Your task to perform on an android device: Clear the shopping cart on newegg.com. Search for "duracell triple a" on newegg.com, select the first entry, add it to the cart, then select checkout. Image 0: 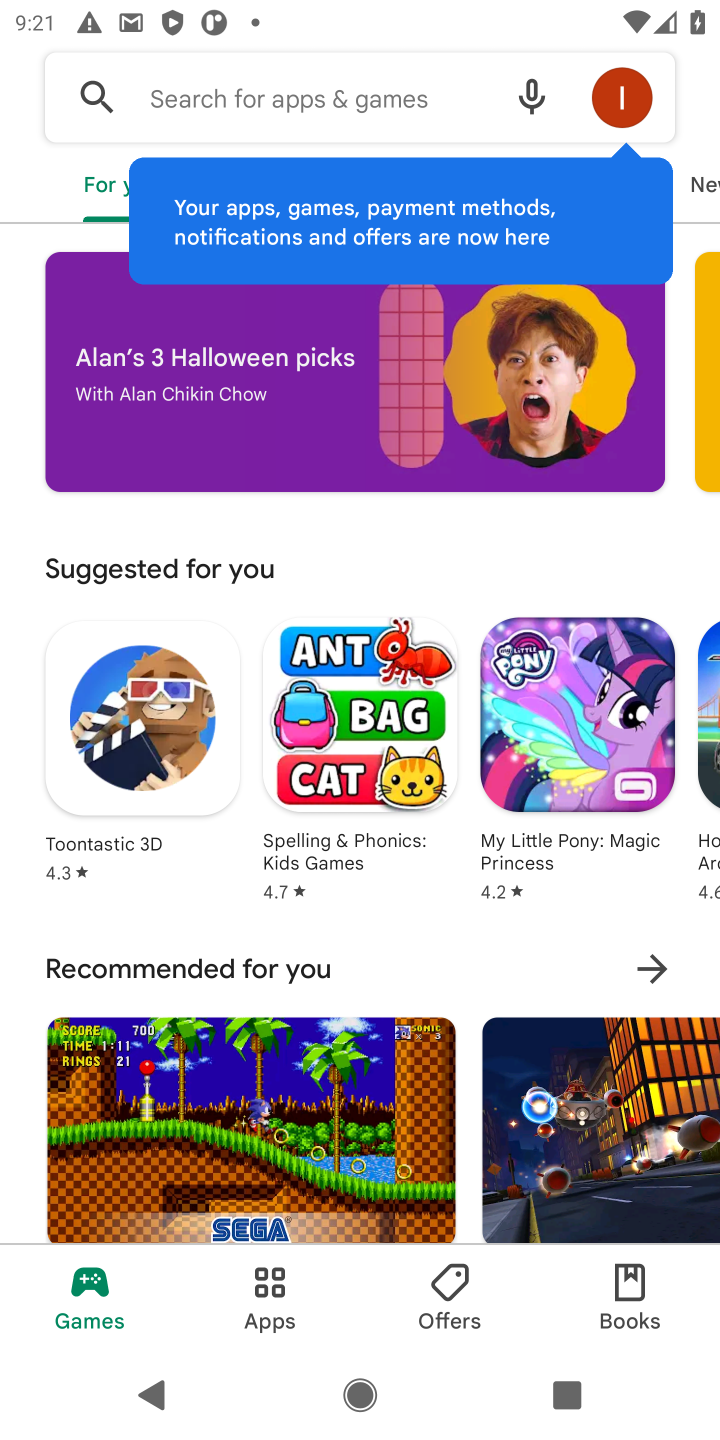
Step 0: press home button
Your task to perform on an android device: Clear the shopping cart on newegg.com. Search for "duracell triple a" on newegg.com, select the first entry, add it to the cart, then select checkout. Image 1: 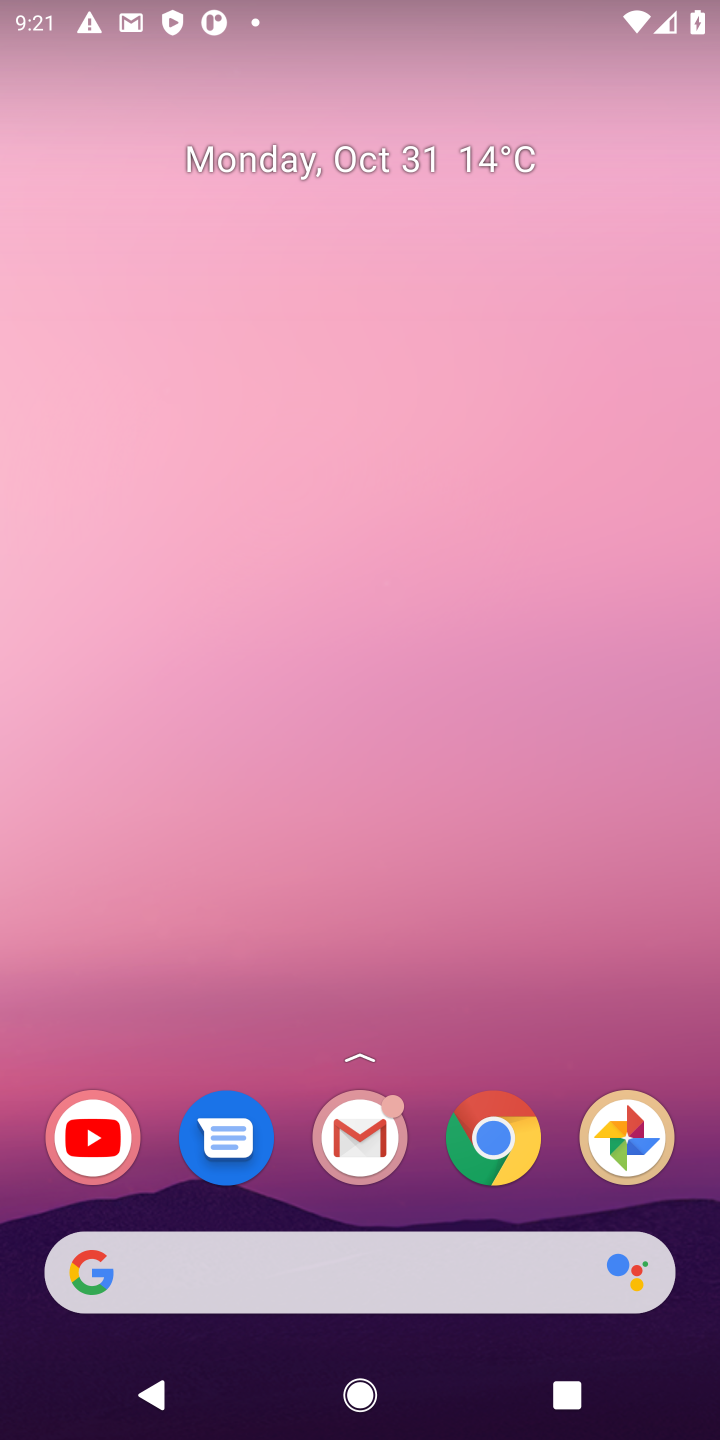
Step 1: click (464, 1153)
Your task to perform on an android device: Clear the shopping cart on newegg.com. Search for "duracell triple a" on newegg.com, select the first entry, add it to the cart, then select checkout. Image 2: 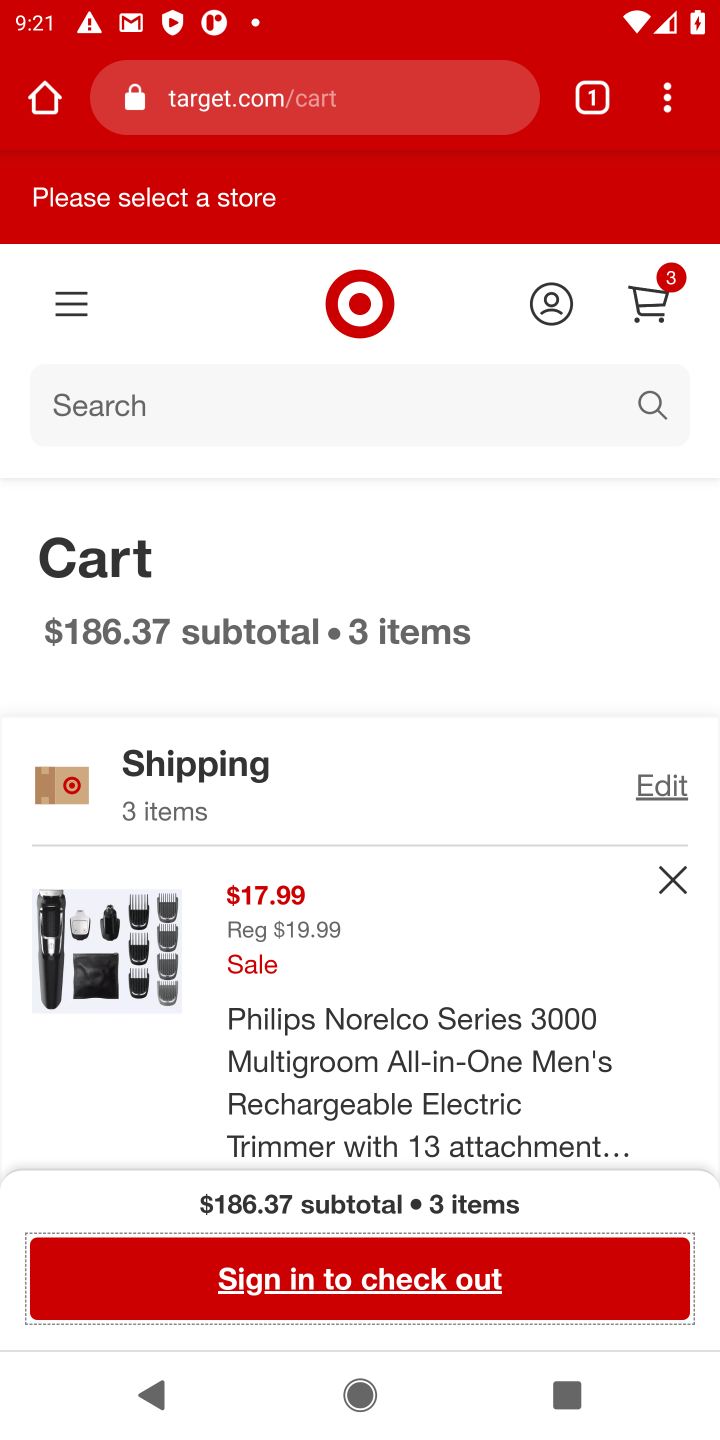
Step 2: click (262, 106)
Your task to perform on an android device: Clear the shopping cart on newegg.com. Search for "duracell triple a" on newegg.com, select the first entry, add it to the cart, then select checkout. Image 3: 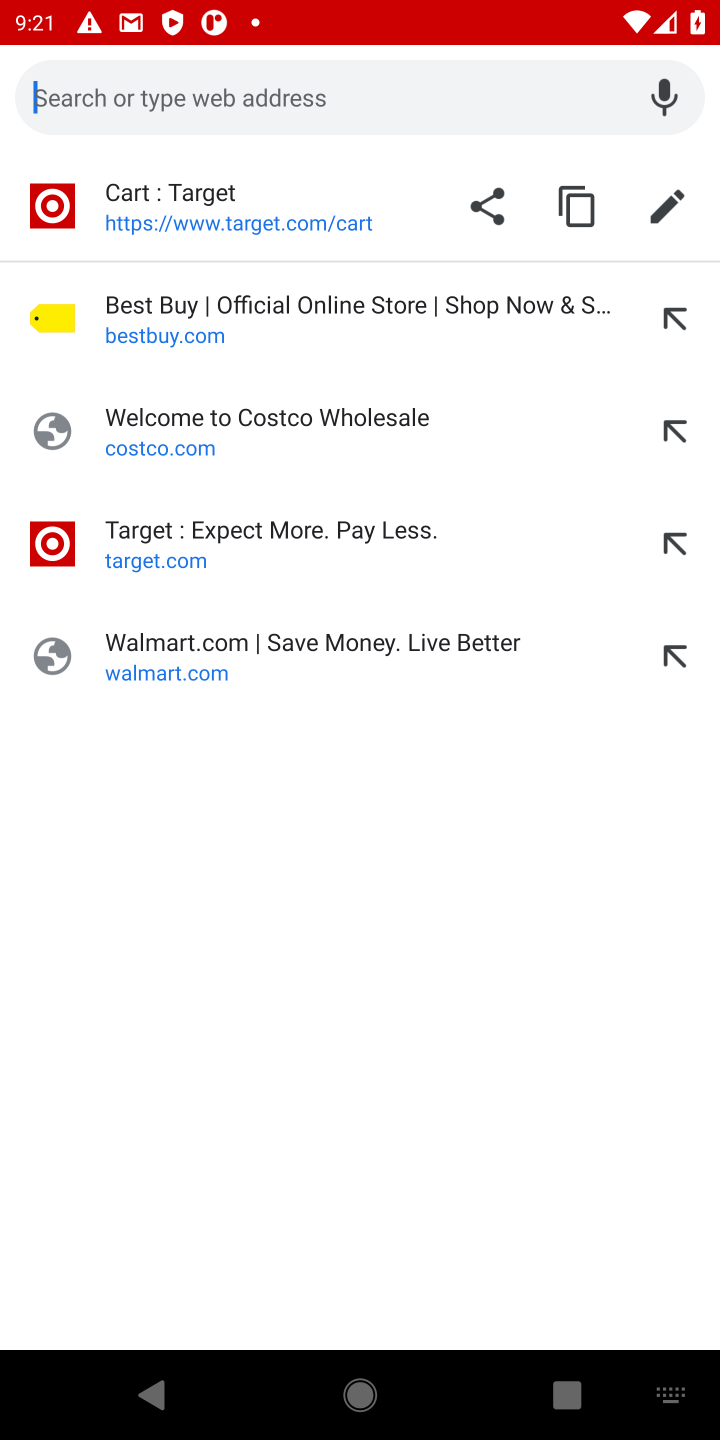
Step 3: type "newegg.com"
Your task to perform on an android device: Clear the shopping cart on newegg.com. Search for "duracell triple a" on newegg.com, select the first entry, add it to the cart, then select checkout. Image 4: 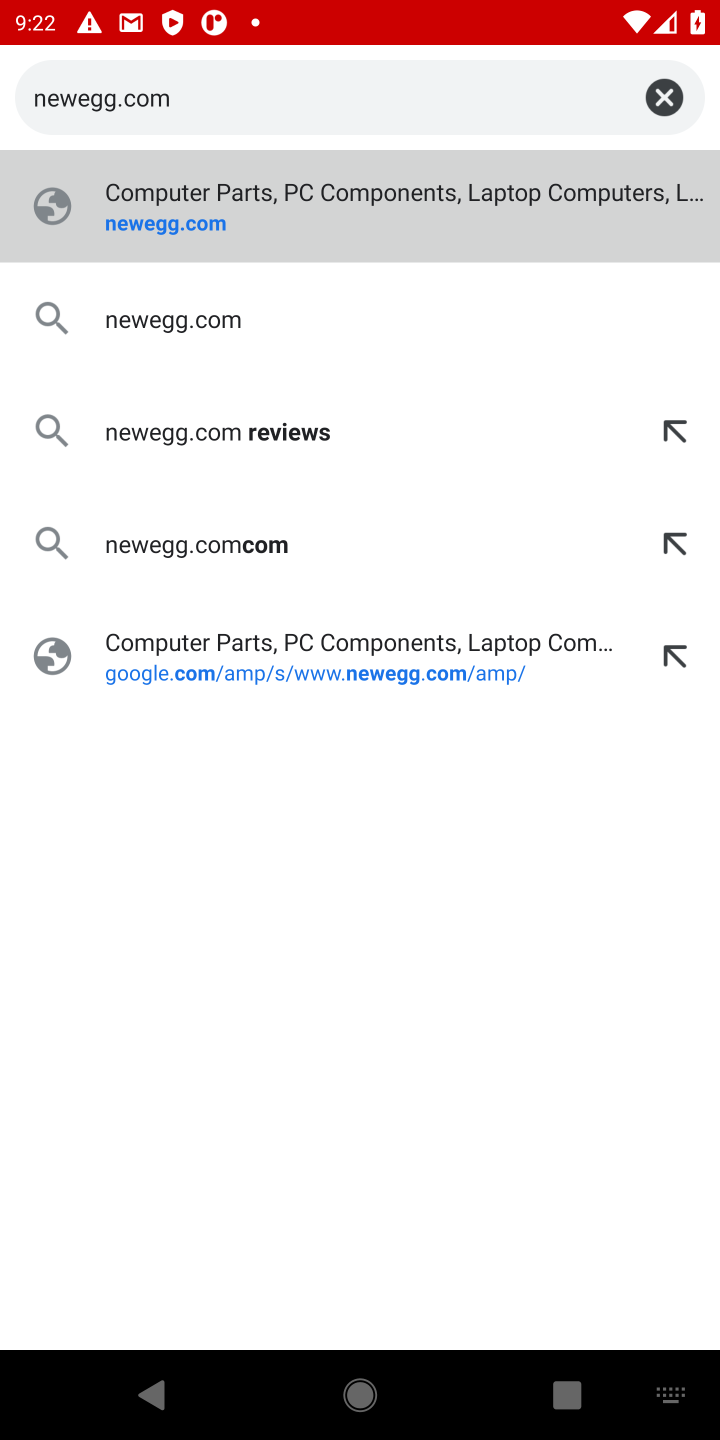
Step 4: click (237, 218)
Your task to perform on an android device: Clear the shopping cart on newegg.com. Search for "duracell triple a" on newegg.com, select the first entry, add it to the cart, then select checkout. Image 5: 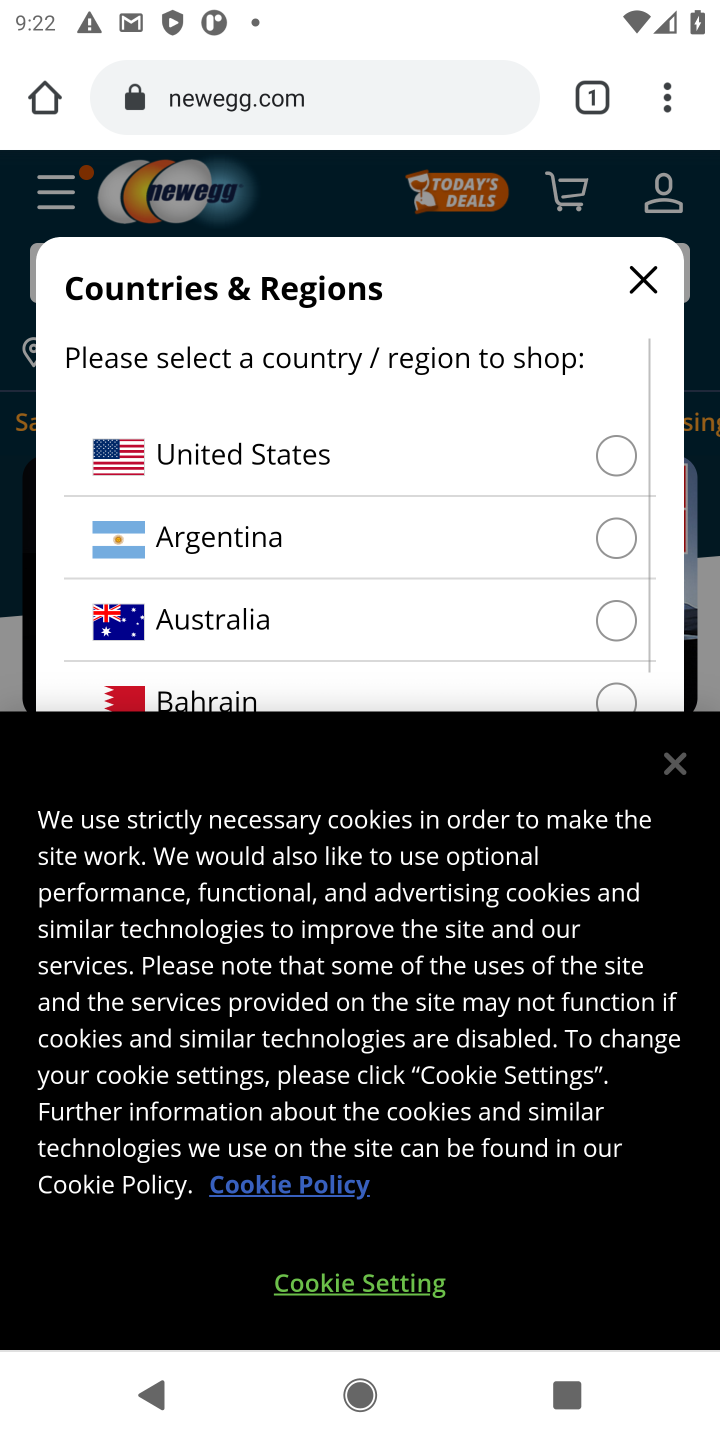
Step 5: click (676, 765)
Your task to perform on an android device: Clear the shopping cart on newegg.com. Search for "duracell triple a" on newegg.com, select the first entry, add it to the cart, then select checkout. Image 6: 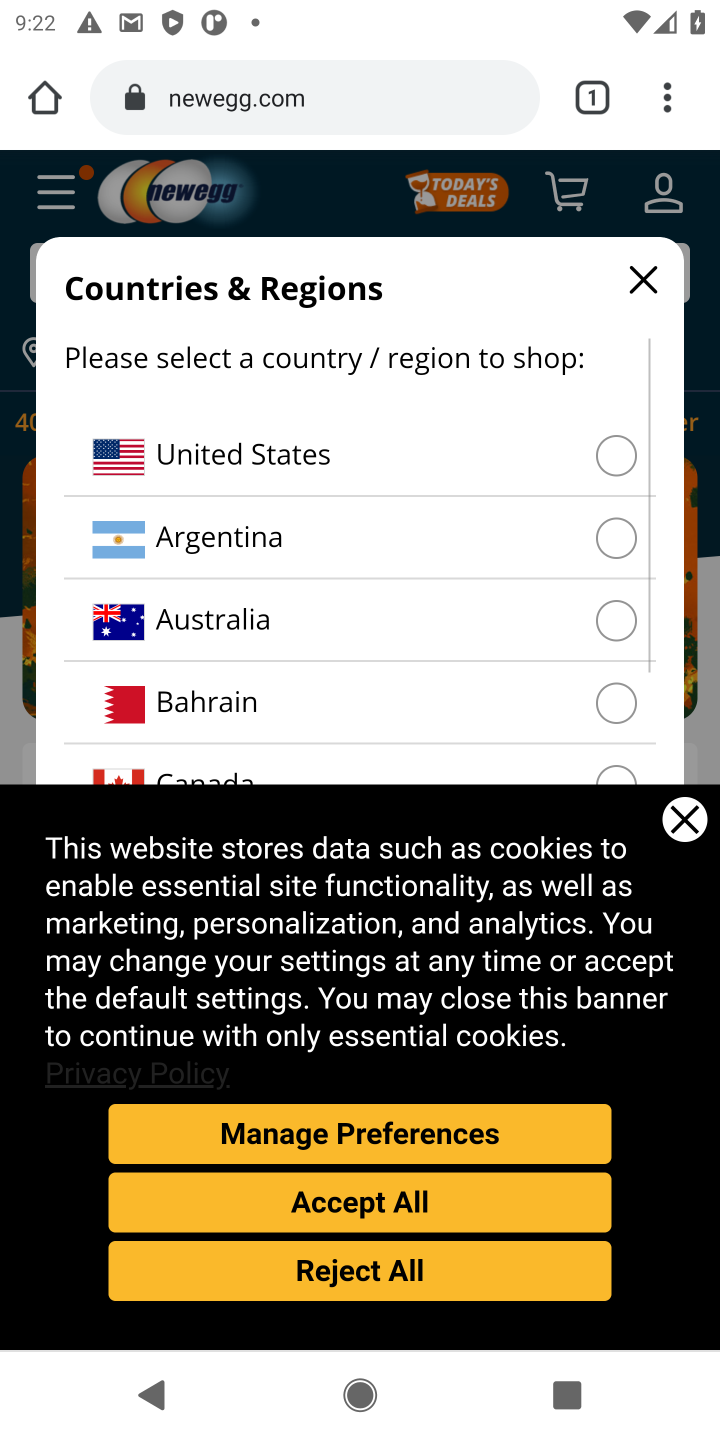
Step 6: click (688, 815)
Your task to perform on an android device: Clear the shopping cart on newegg.com. Search for "duracell triple a" on newegg.com, select the first entry, add it to the cart, then select checkout. Image 7: 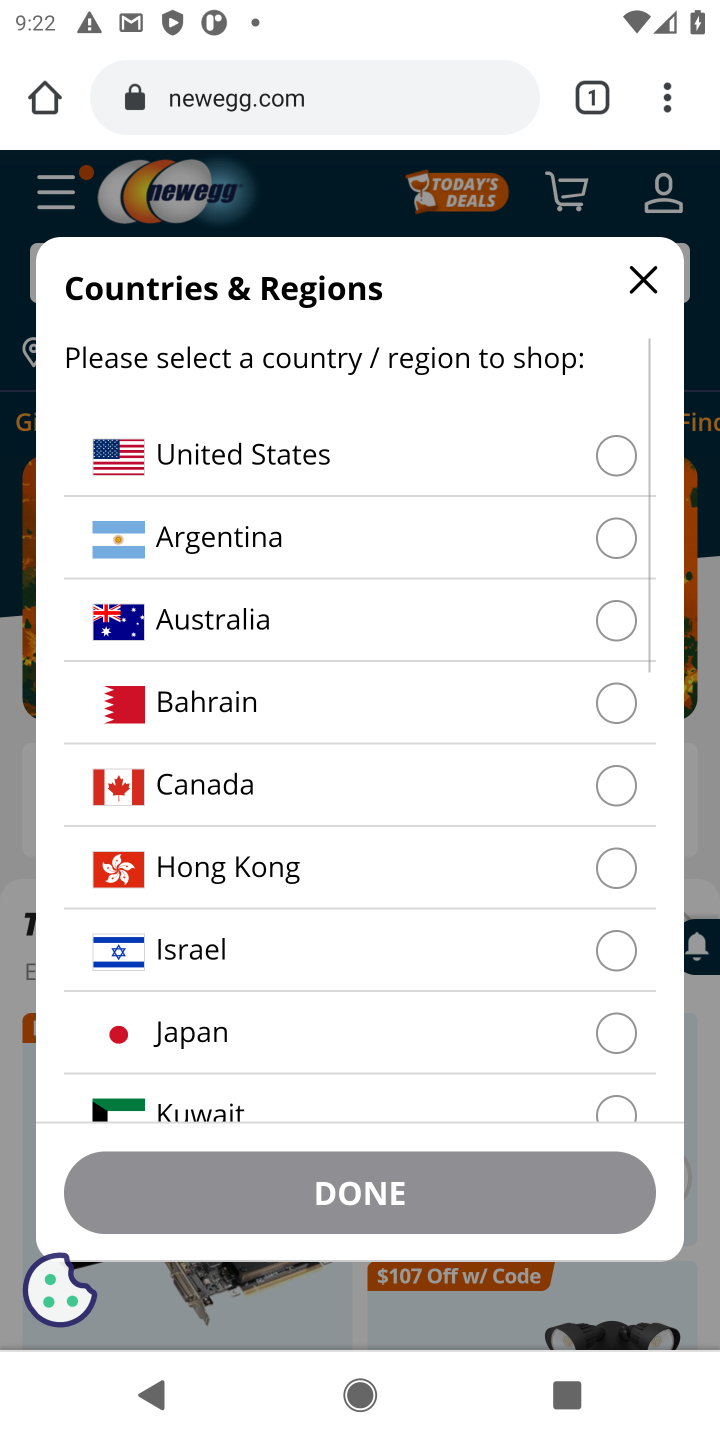
Step 7: click (246, 99)
Your task to perform on an android device: Clear the shopping cart on newegg.com. Search for "duracell triple a" on newegg.com, select the first entry, add it to the cart, then select checkout. Image 8: 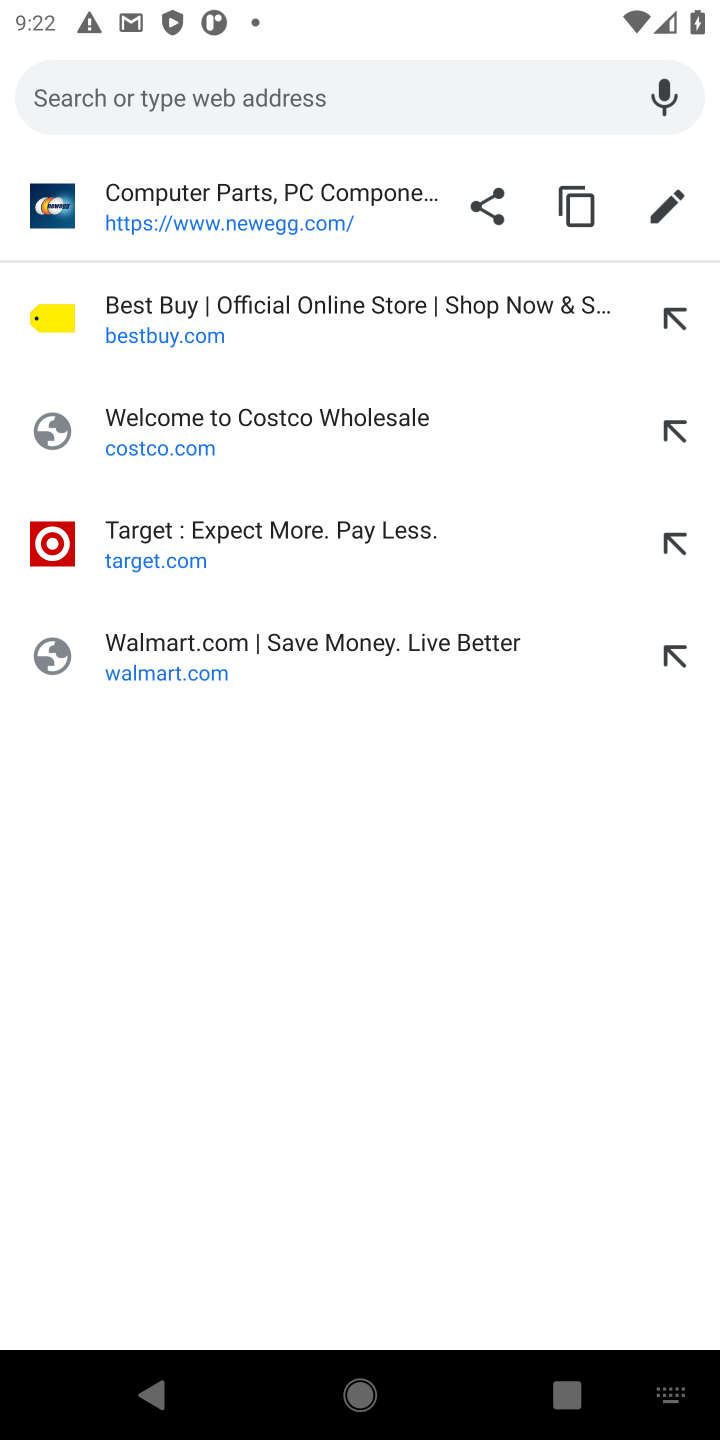
Step 8: type "newegg.com"
Your task to perform on an android device: Clear the shopping cart on newegg.com. Search for "duracell triple a" on newegg.com, select the first entry, add it to the cart, then select checkout. Image 9: 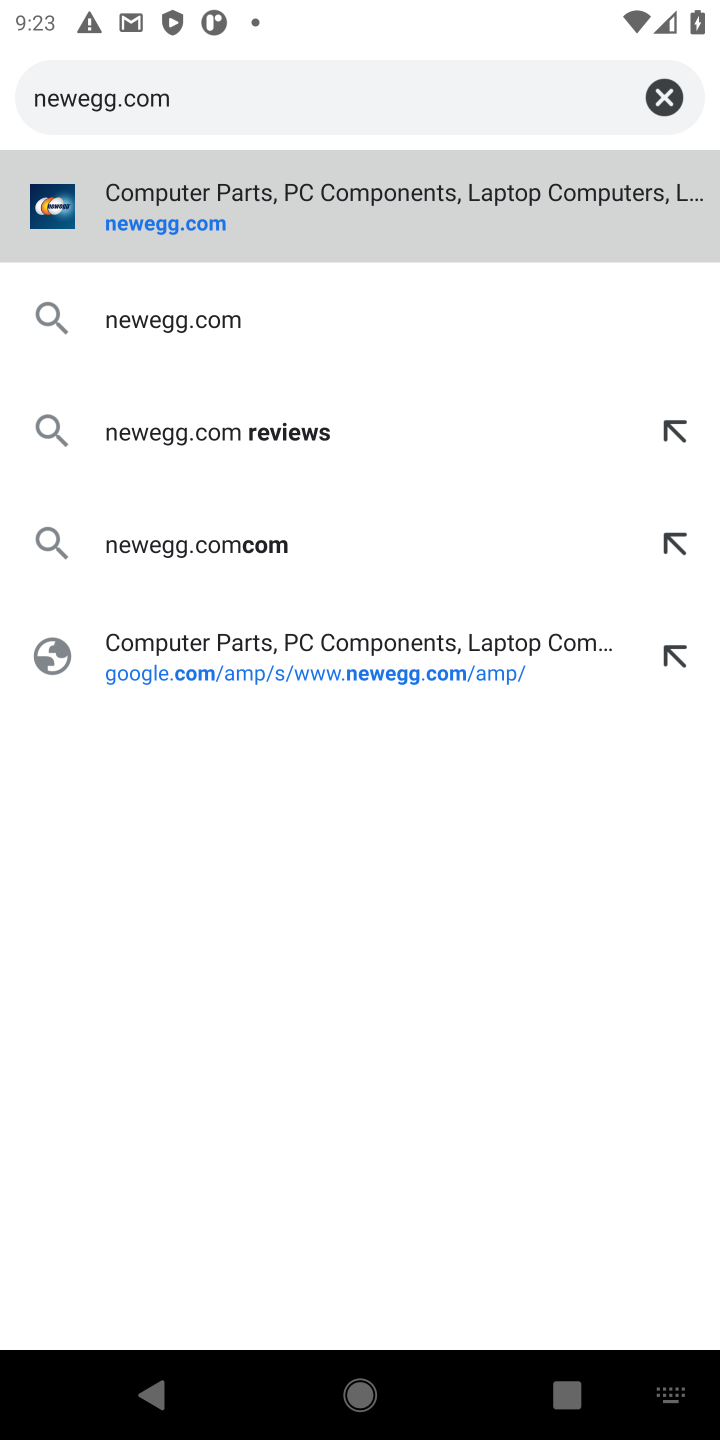
Step 9: type ""
Your task to perform on an android device: Clear the shopping cart on newegg.com. Search for "duracell triple a" on newegg.com, select the first entry, add it to the cart, then select checkout. Image 10: 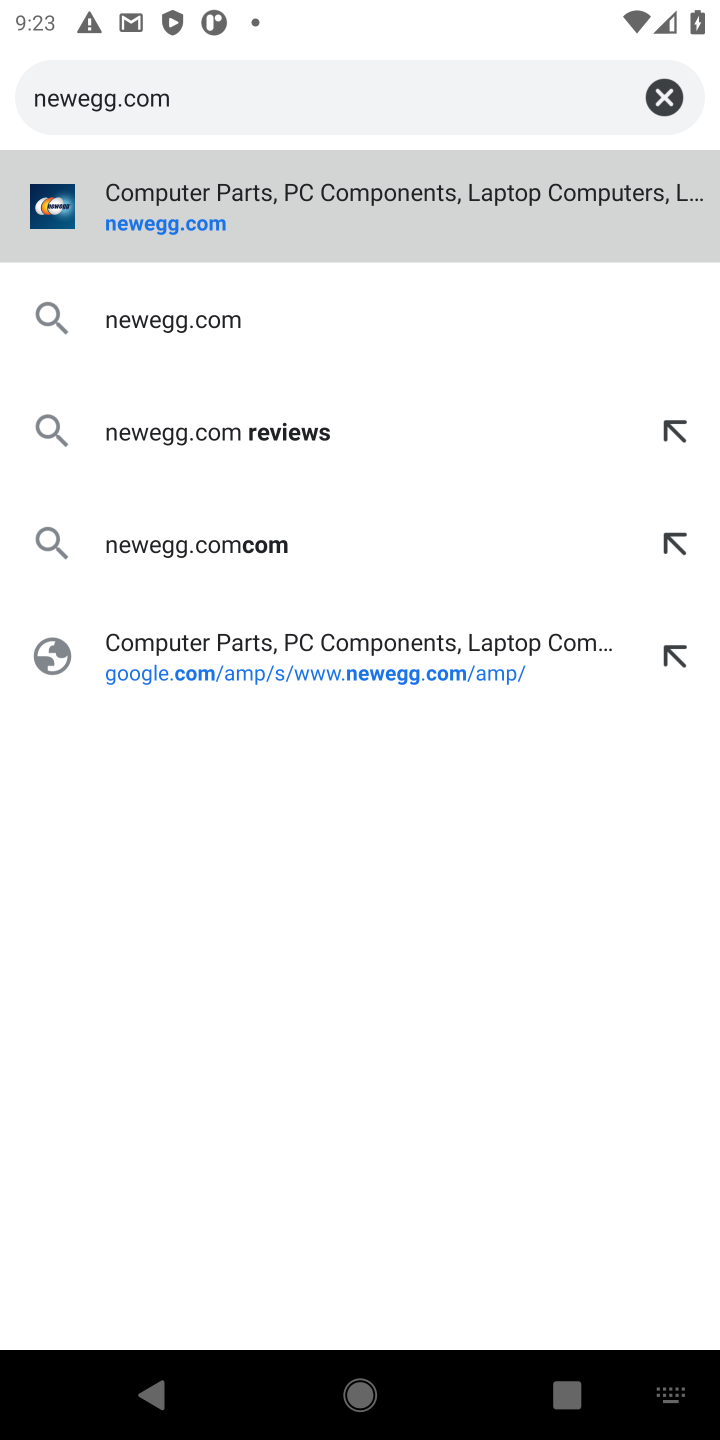
Step 10: click (183, 186)
Your task to perform on an android device: Clear the shopping cart on newegg.com. Search for "duracell triple a" on newegg.com, select the first entry, add it to the cart, then select checkout. Image 11: 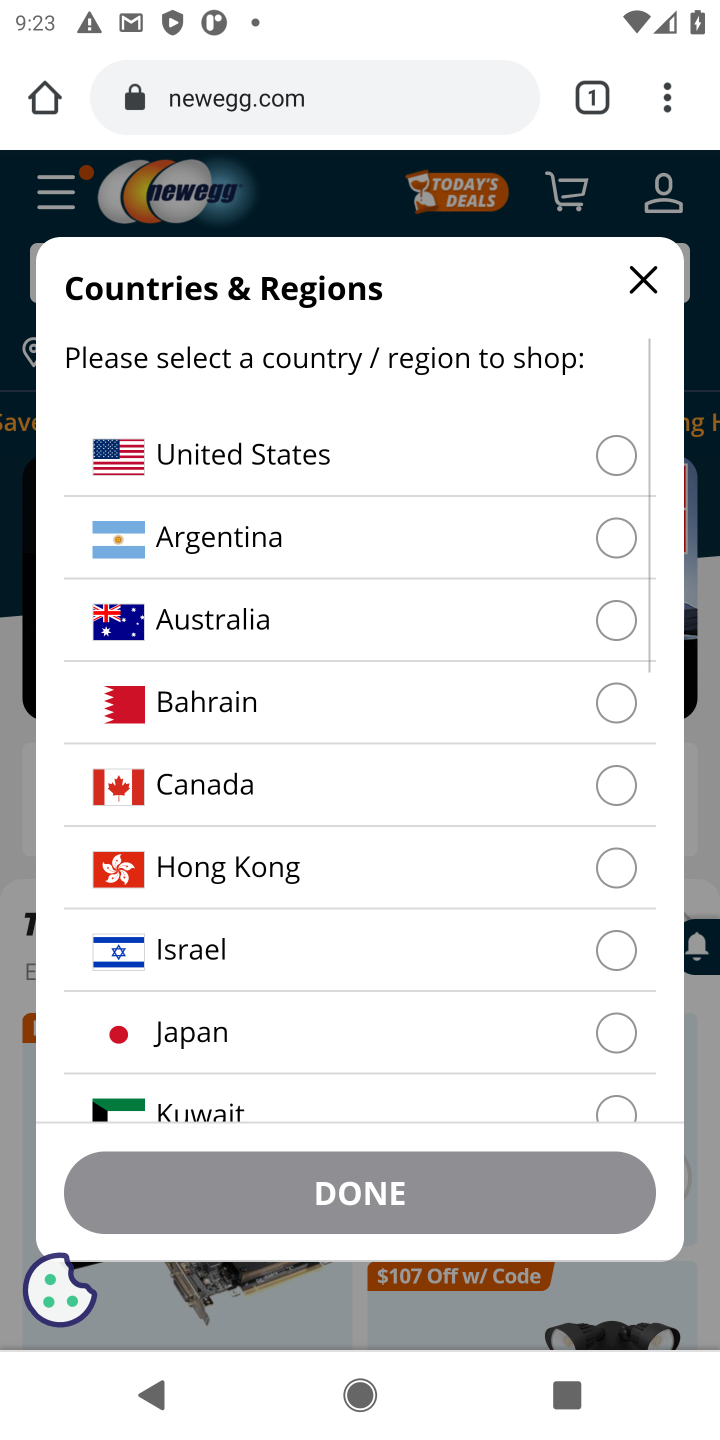
Step 11: click (639, 284)
Your task to perform on an android device: Clear the shopping cart on newegg.com. Search for "duracell triple a" on newegg.com, select the first entry, add it to the cart, then select checkout. Image 12: 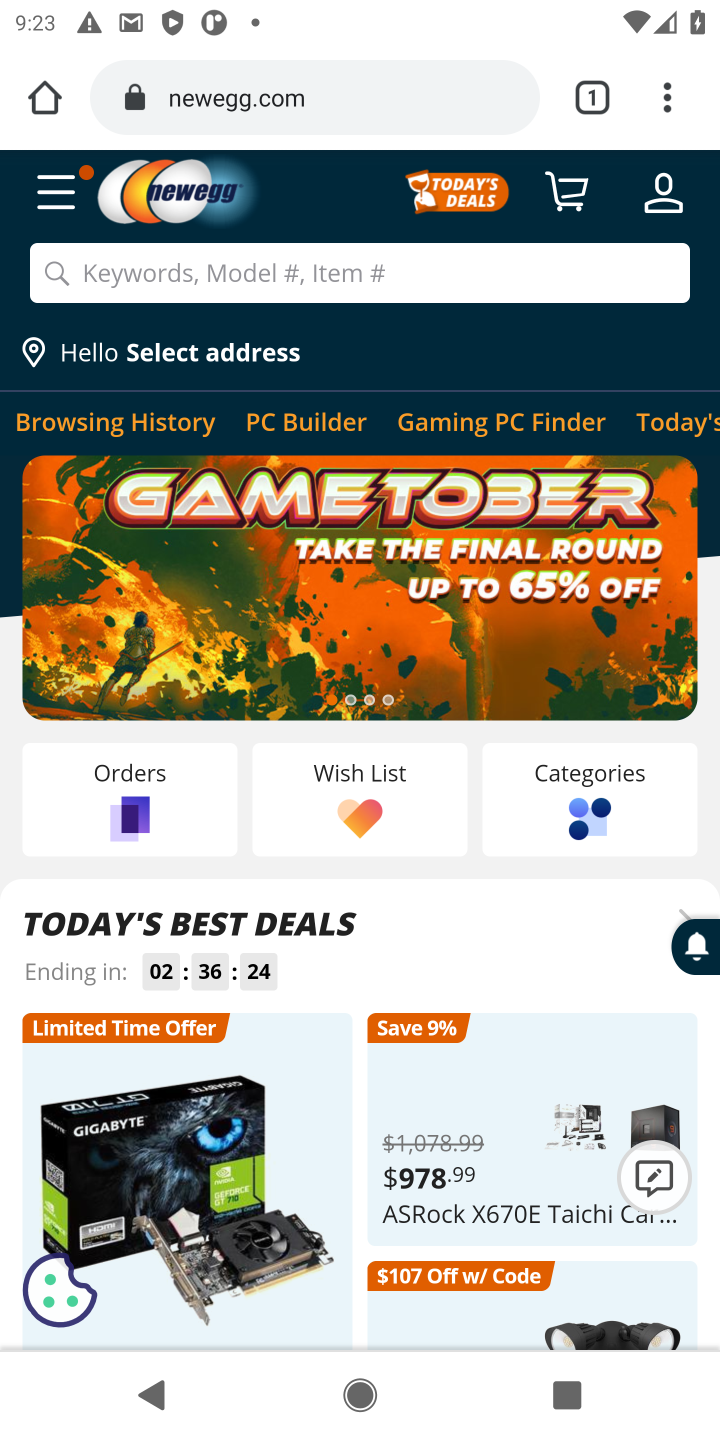
Step 12: click (602, 458)
Your task to perform on an android device: Clear the shopping cart on newegg.com. Search for "duracell triple a" on newegg.com, select the first entry, add it to the cart, then select checkout. Image 13: 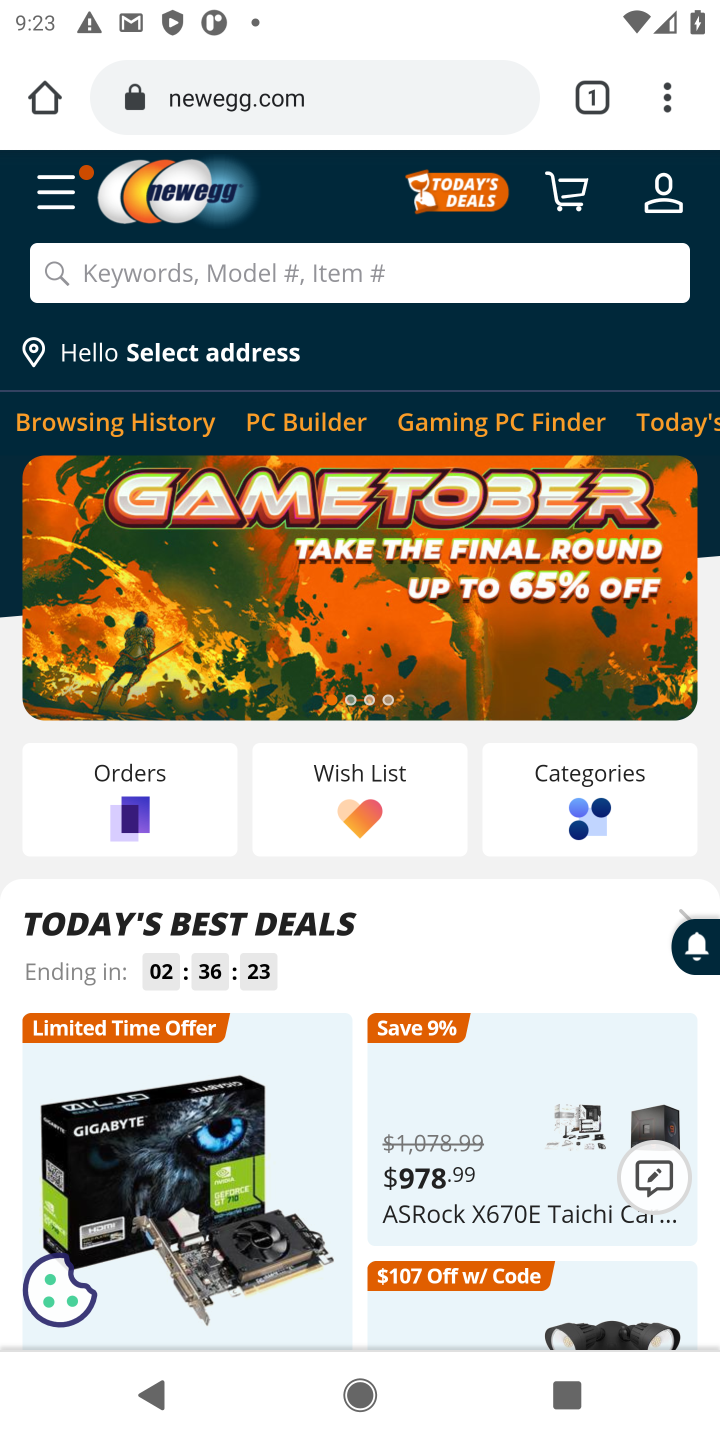
Step 13: click (620, 448)
Your task to perform on an android device: Clear the shopping cart on newegg.com. Search for "duracell triple a" on newegg.com, select the first entry, add it to the cart, then select checkout. Image 14: 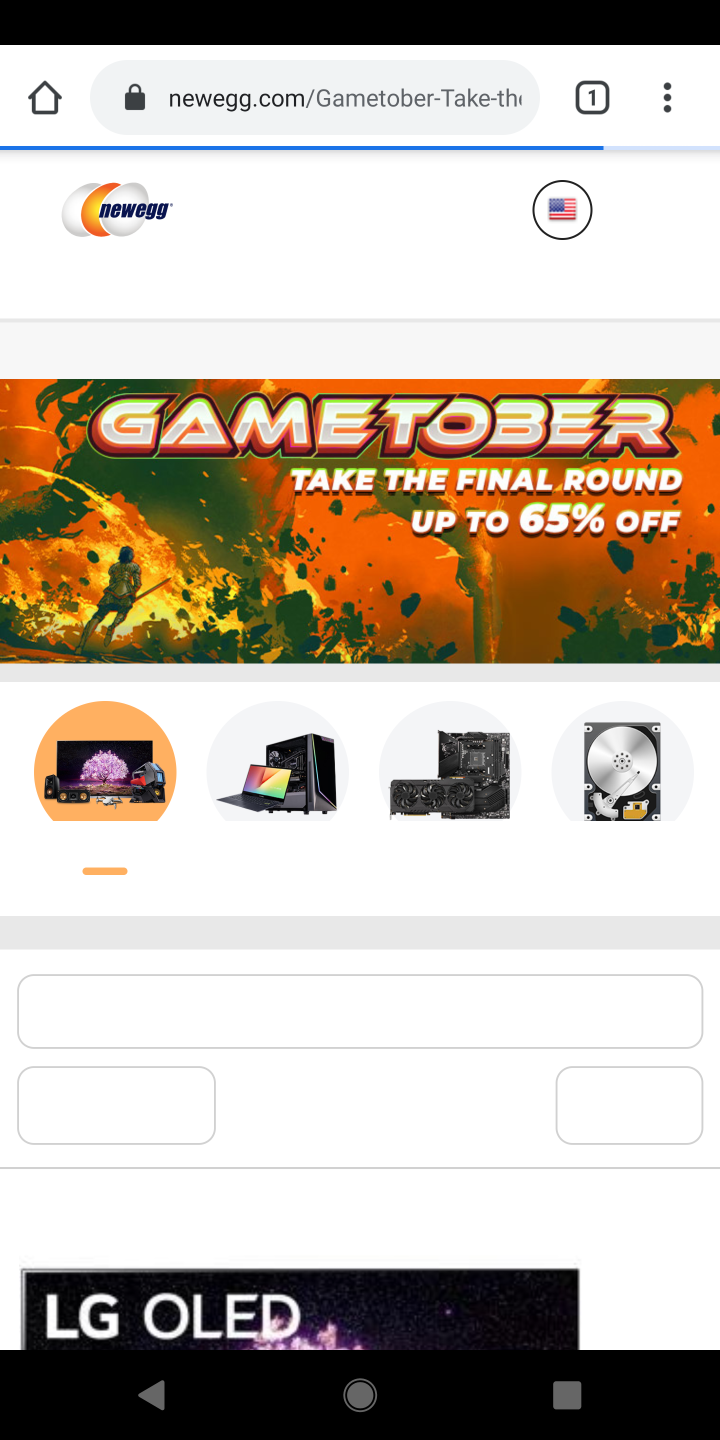
Step 14: click (154, 268)
Your task to perform on an android device: Clear the shopping cart on newegg.com. Search for "duracell triple a" on newegg.com, select the first entry, add it to the cart, then select checkout. Image 15: 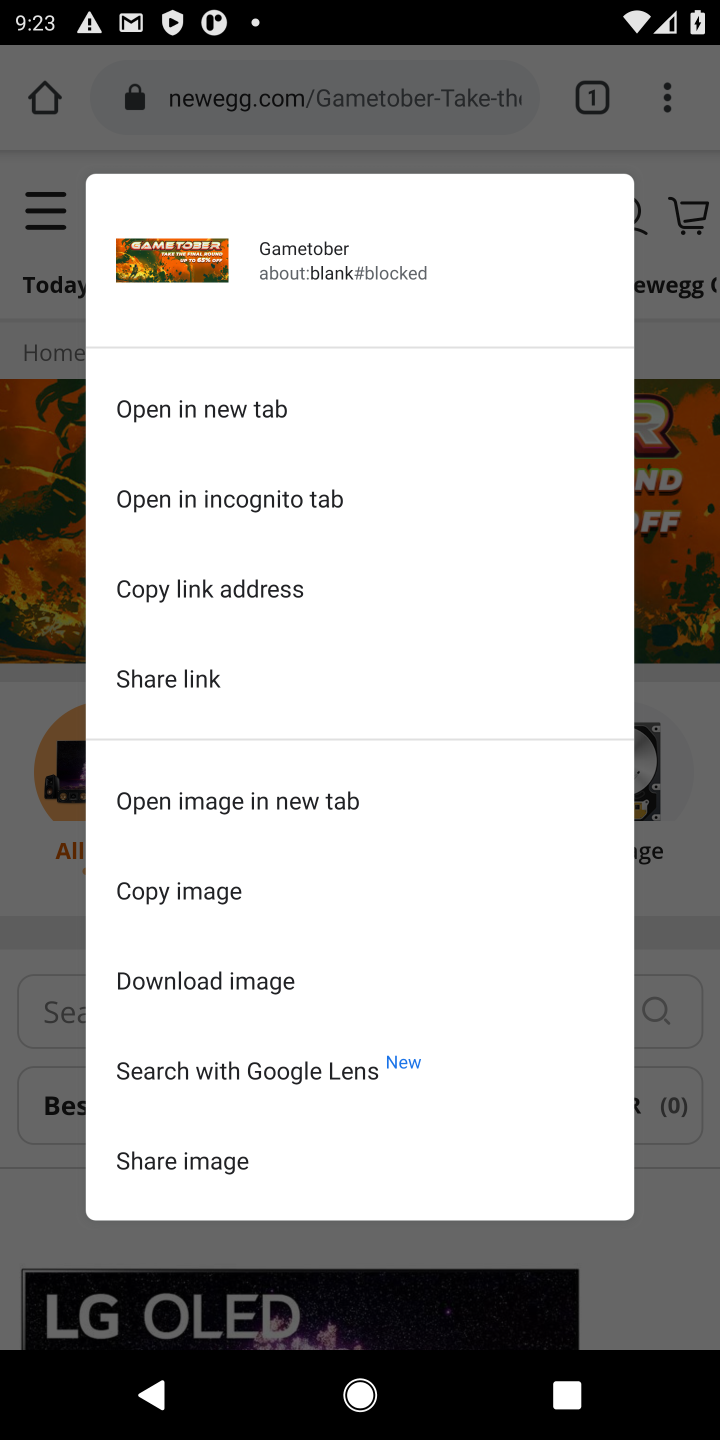
Step 15: press back button
Your task to perform on an android device: Clear the shopping cart on newegg.com. Search for "duracell triple a" on newegg.com, select the first entry, add it to the cart, then select checkout. Image 16: 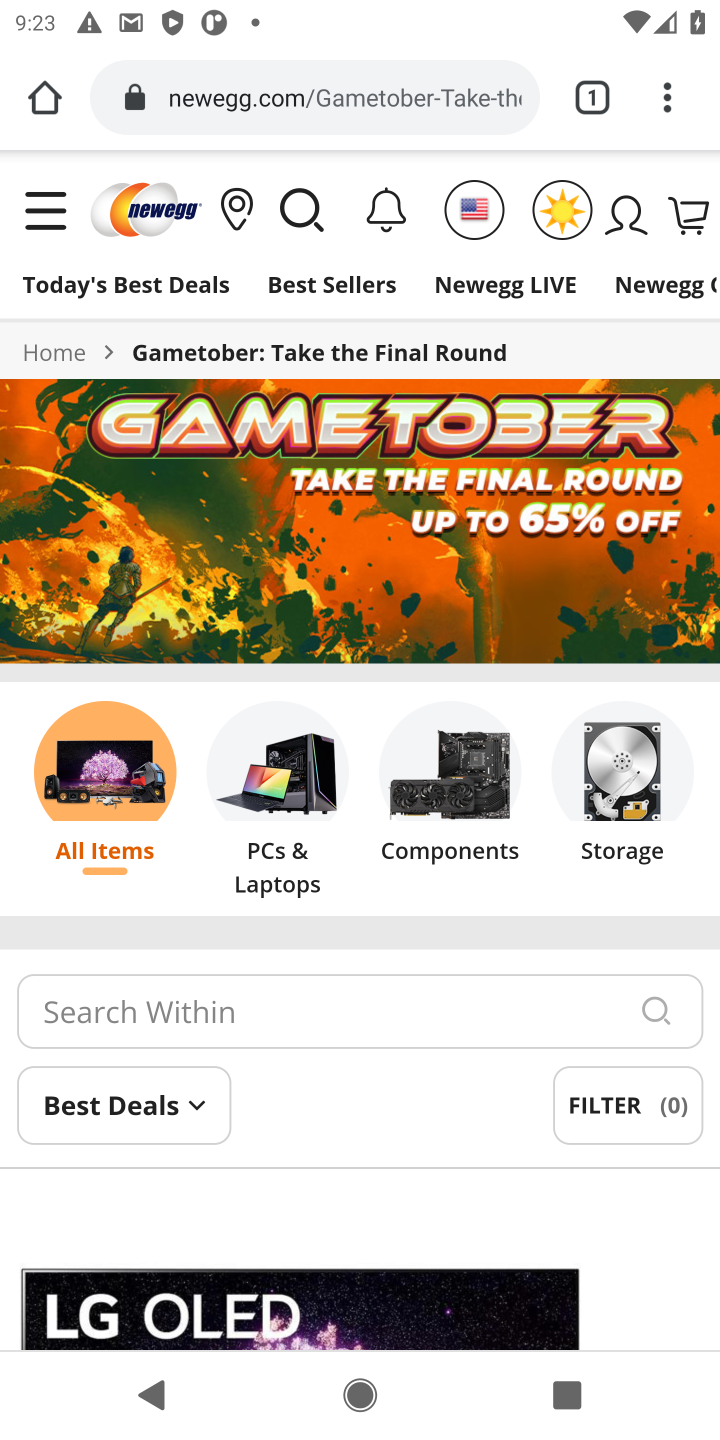
Step 16: click (288, 1010)
Your task to perform on an android device: Clear the shopping cart on newegg.com. Search for "duracell triple a" on newegg.com, select the first entry, add it to the cart, then select checkout. Image 17: 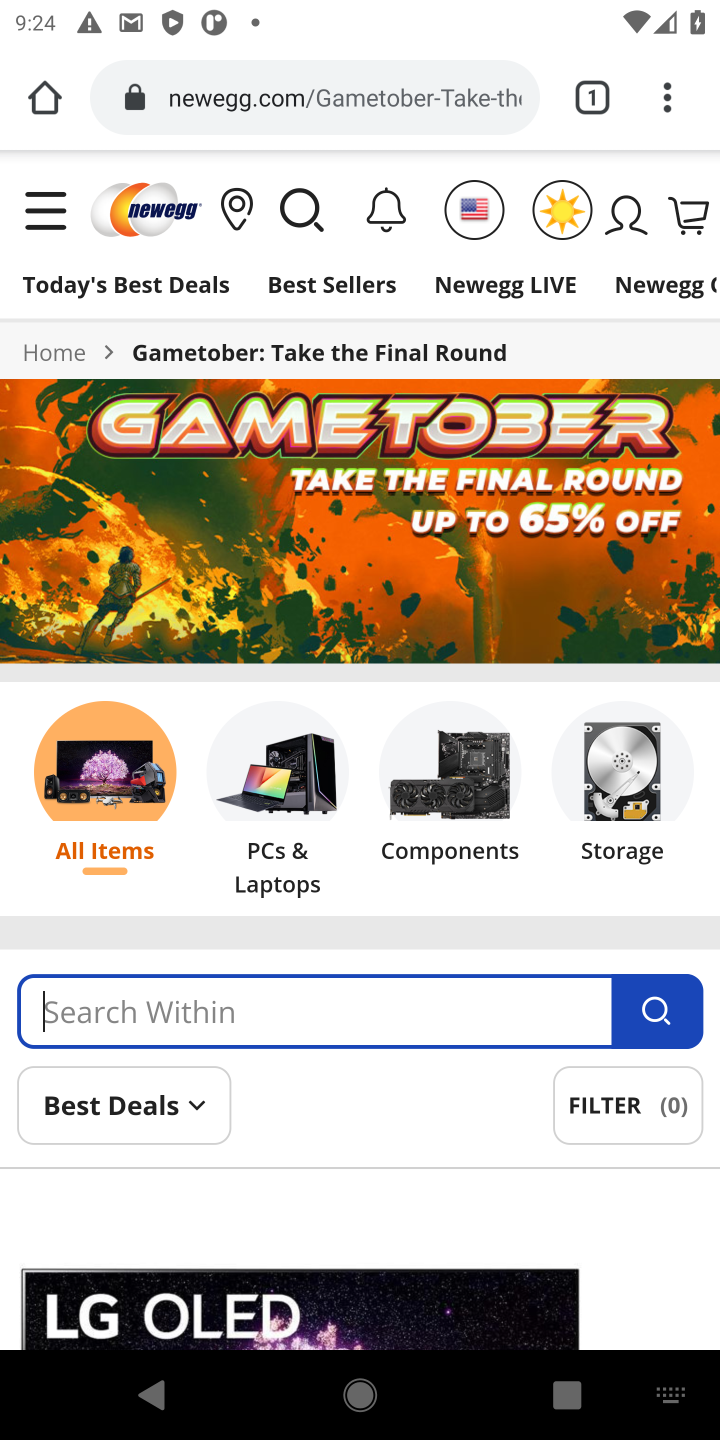
Step 17: type "duracell triple"
Your task to perform on an android device: Clear the shopping cart on newegg.com. Search for "duracell triple a" on newegg.com, select the first entry, add it to the cart, then select checkout. Image 18: 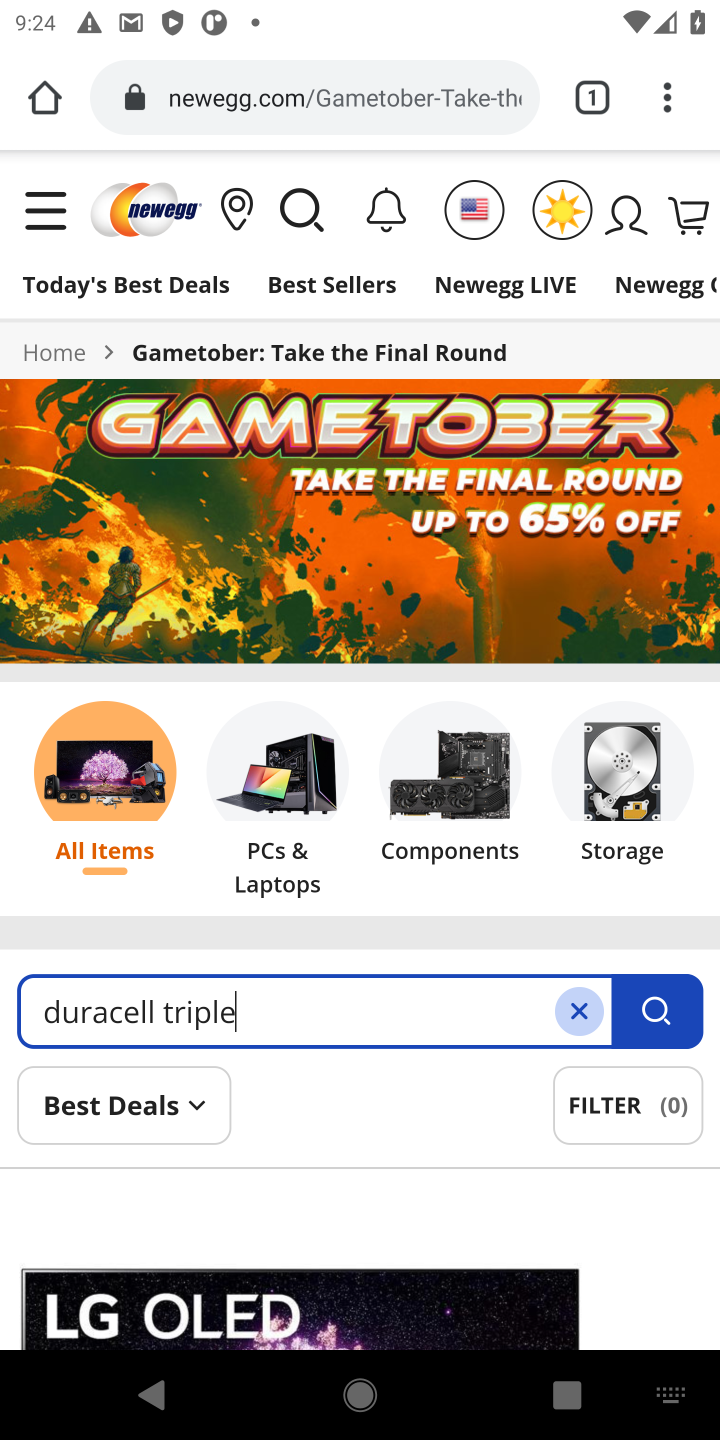
Step 18: type ""
Your task to perform on an android device: Clear the shopping cart on newegg.com. Search for "duracell triple a" on newegg.com, select the first entry, add it to the cart, then select checkout. Image 19: 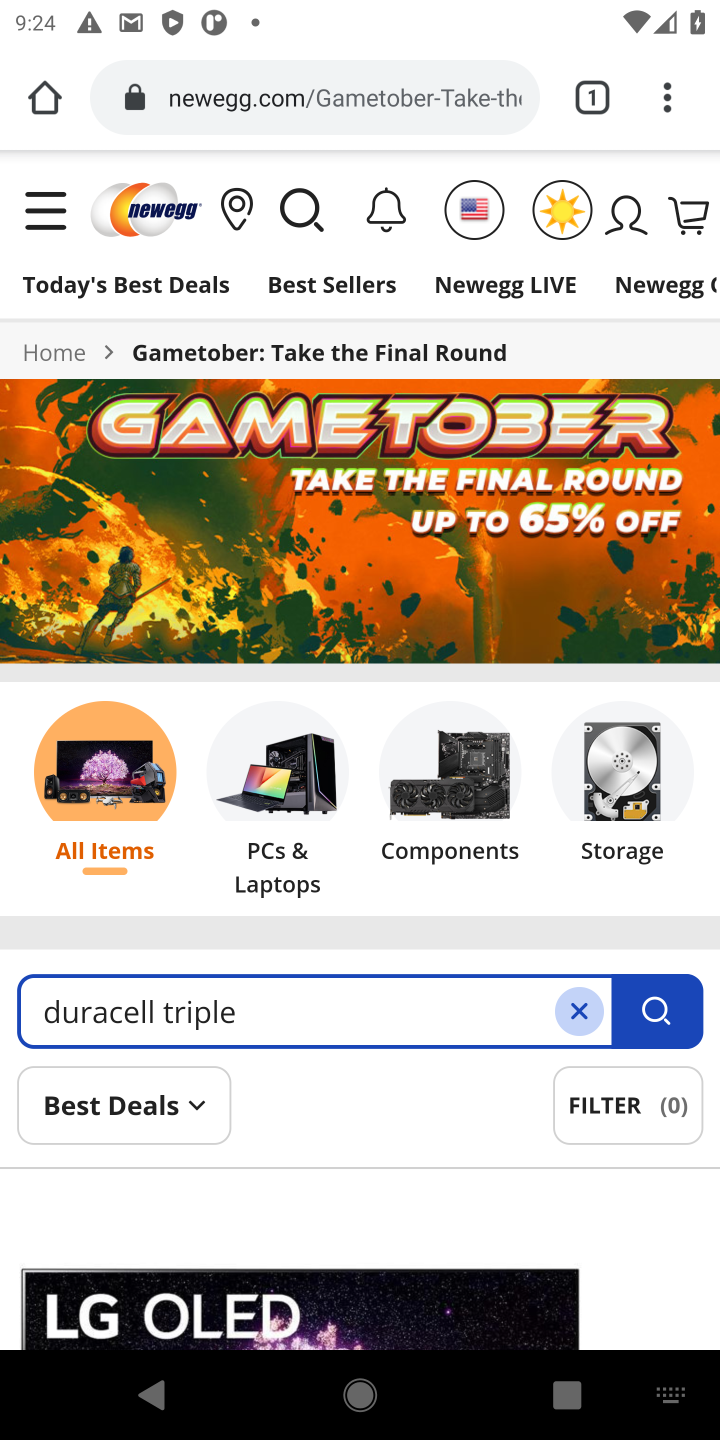
Step 19: click (651, 1023)
Your task to perform on an android device: Clear the shopping cart on newegg.com. Search for "duracell triple a" on newegg.com, select the first entry, add it to the cart, then select checkout. Image 20: 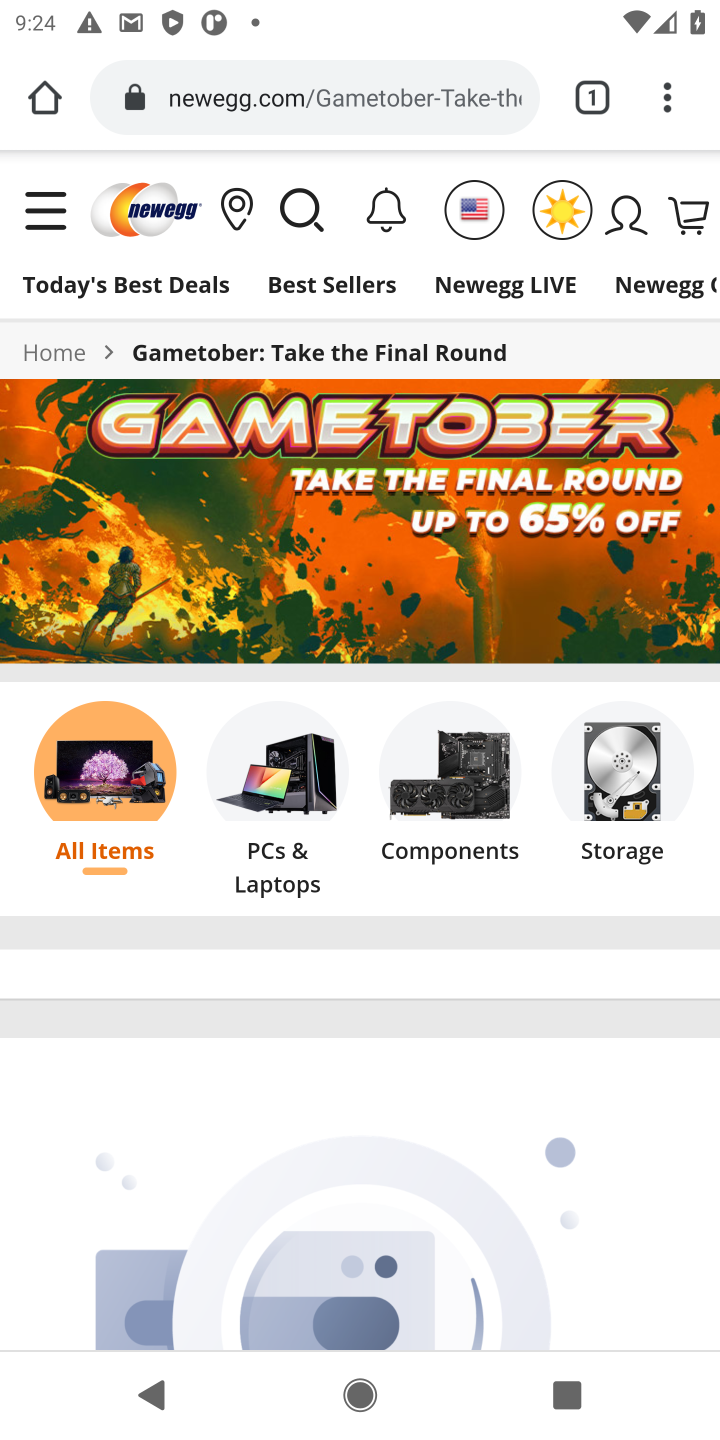
Step 20: click (311, 212)
Your task to perform on an android device: Clear the shopping cart on newegg.com. Search for "duracell triple a" on newegg.com, select the first entry, add it to the cart, then select checkout. Image 21: 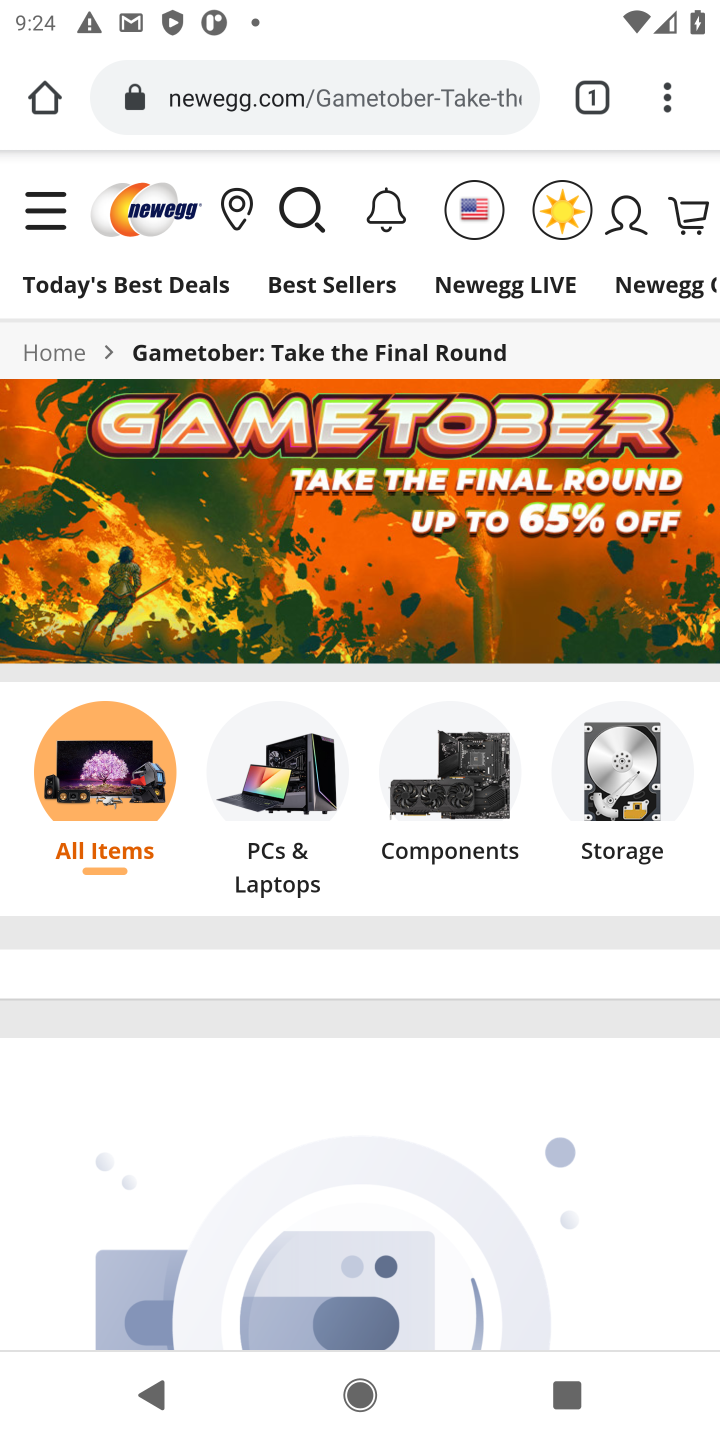
Step 21: click (317, 208)
Your task to perform on an android device: Clear the shopping cart on newegg.com. Search for "duracell triple a" on newegg.com, select the first entry, add it to the cart, then select checkout. Image 22: 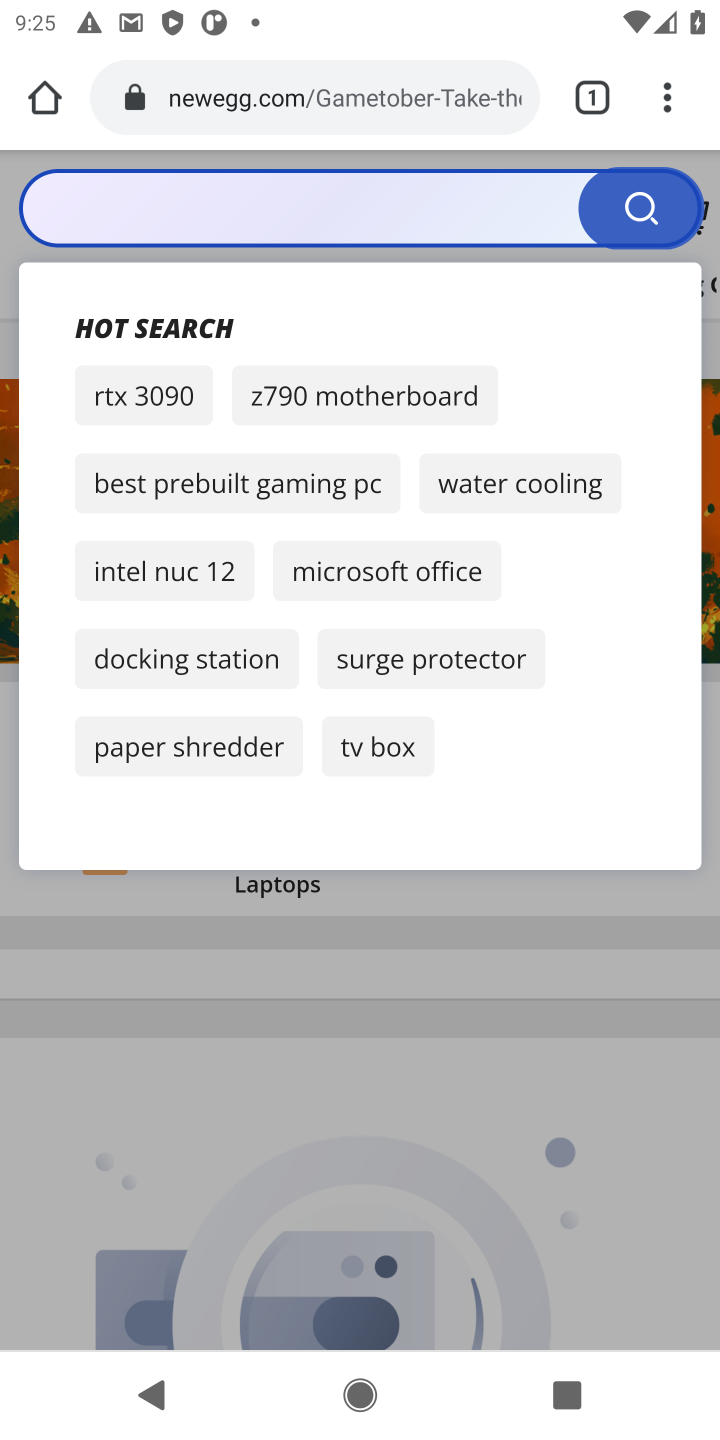
Step 22: click (110, 188)
Your task to perform on an android device: Clear the shopping cart on newegg.com. Search for "duracell triple a" on newegg.com, select the first entry, add it to the cart, then select checkout. Image 23: 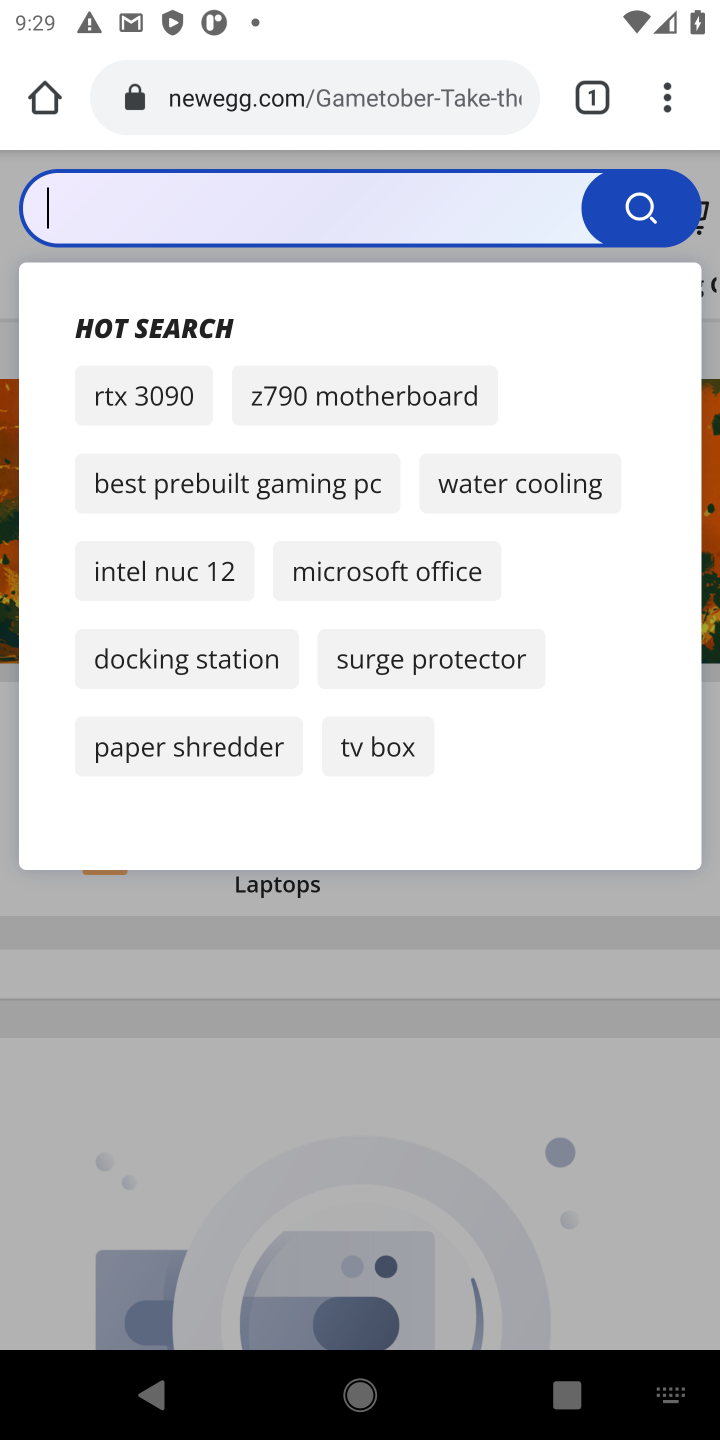
Step 23: type "duracell triple "
Your task to perform on an android device: Clear the shopping cart on newegg.com. Search for "duracell triple a" on newegg.com, select the first entry, add it to the cart, then select checkout. Image 24: 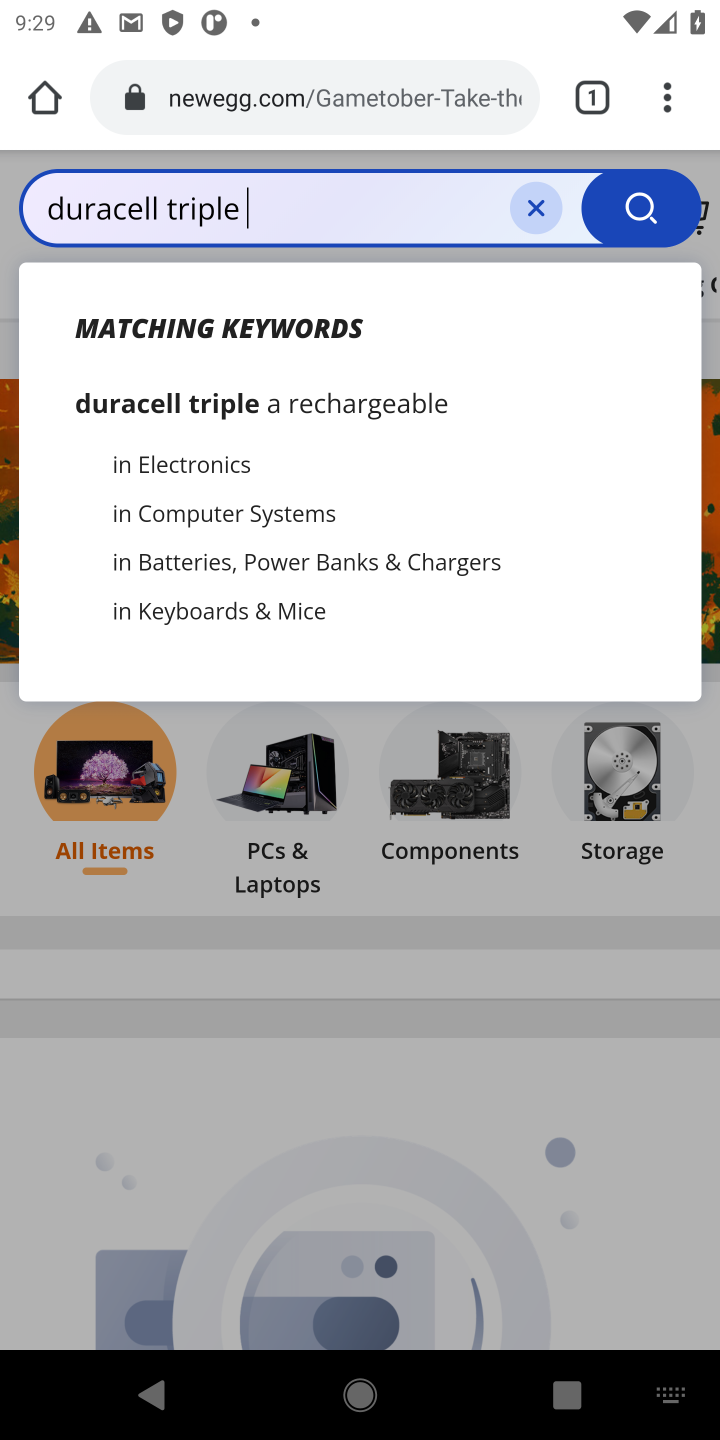
Step 24: click (335, 401)
Your task to perform on an android device: Clear the shopping cart on newegg.com. Search for "duracell triple a" on newegg.com, select the first entry, add it to the cart, then select checkout. Image 25: 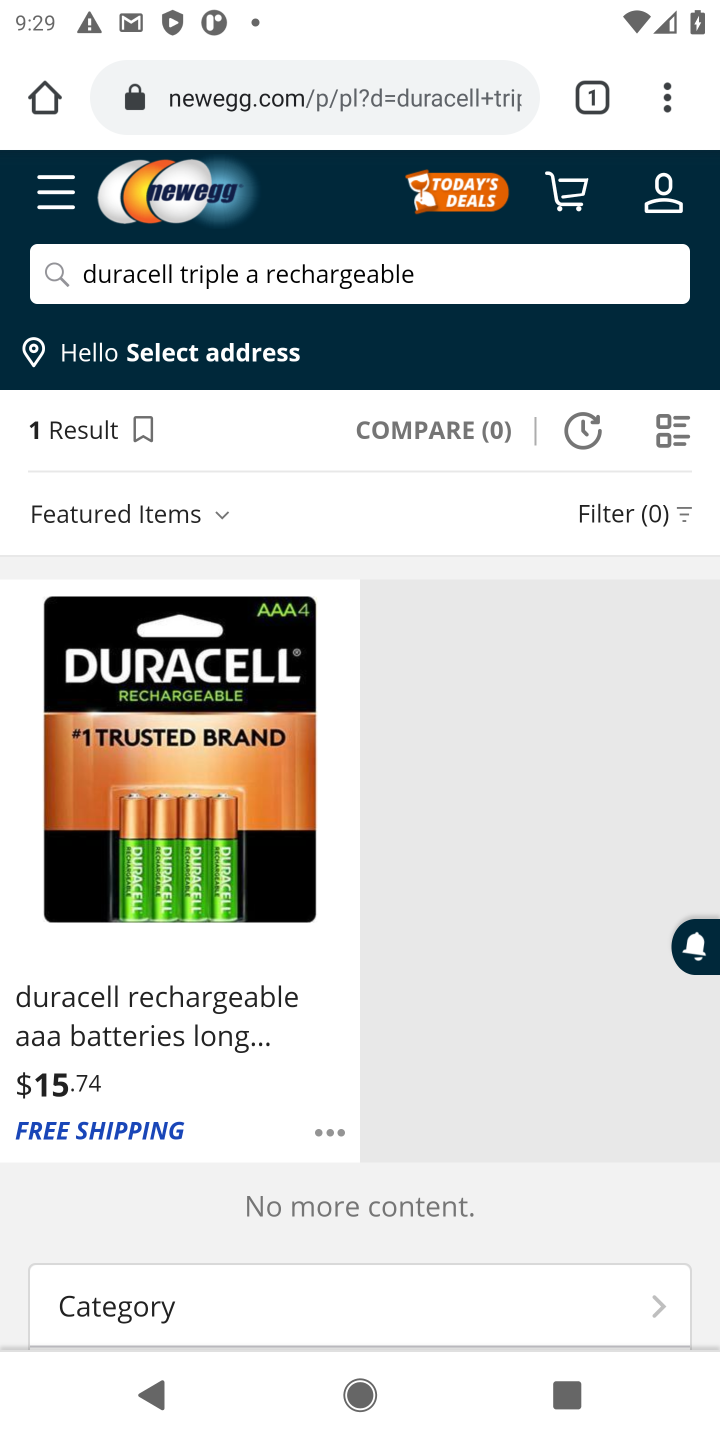
Step 25: click (174, 808)
Your task to perform on an android device: Clear the shopping cart on newegg.com. Search for "duracell triple a" on newegg.com, select the first entry, add it to the cart, then select checkout. Image 26: 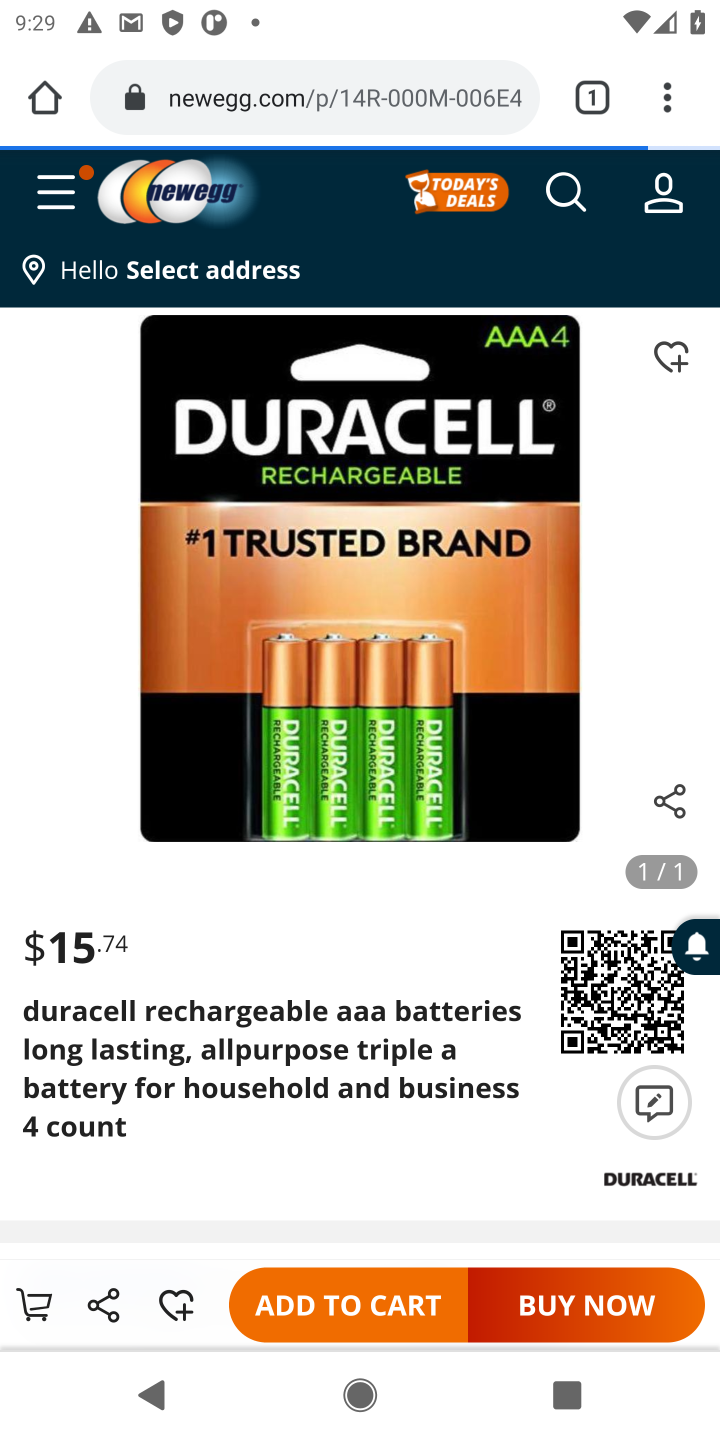
Step 26: click (345, 1304)
Your task to perform on an android device: Clear the shopping cart on newegg.com. Search for "duracell triple a" on newegg.com, select the first entry, add it to the cart, then select checkout. Image 27: 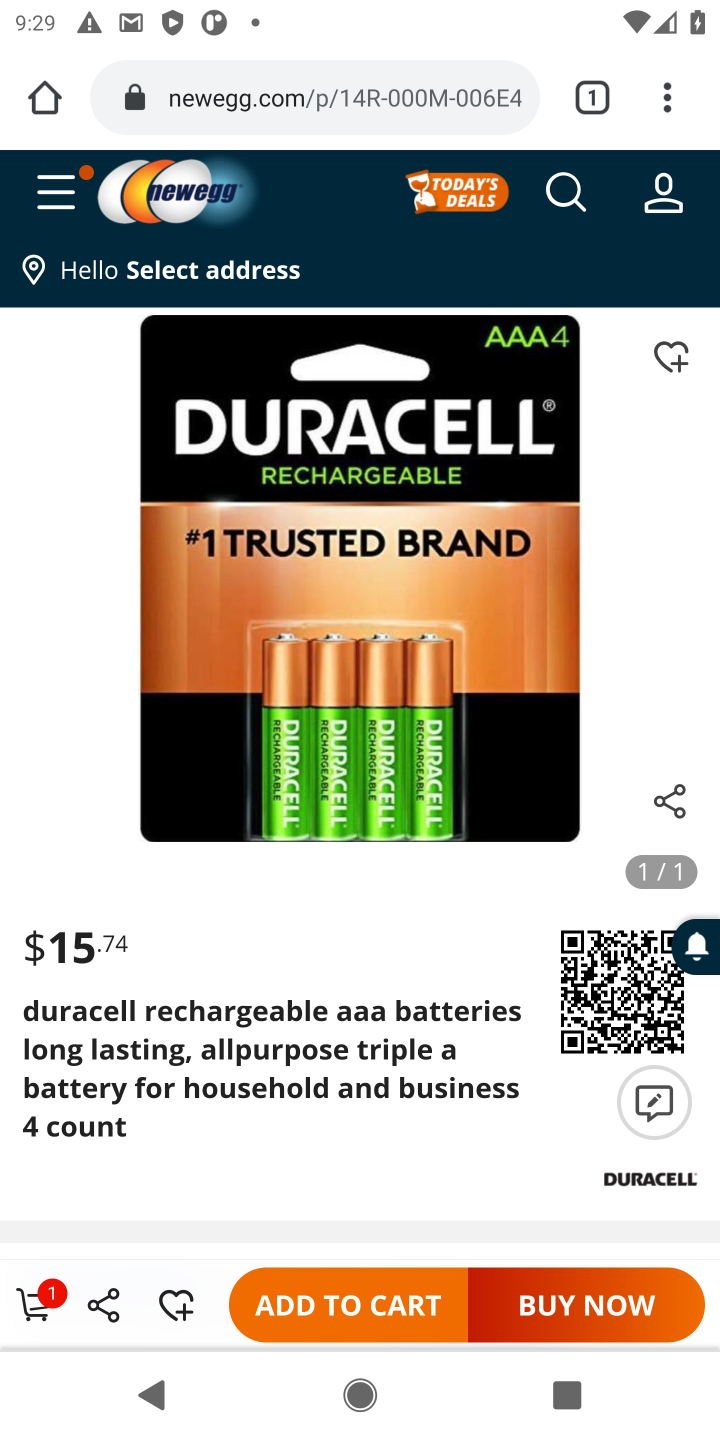
Step 27: task complete